Your task to perform on an android device: Go to display settings Image 0: 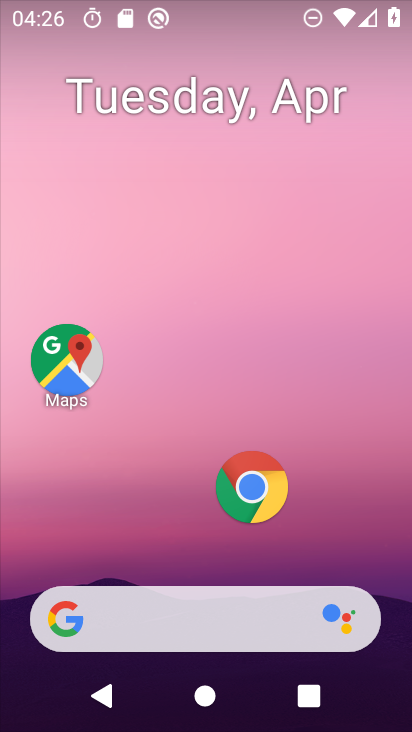
Step 0: drag from (168, 471) to (232, 26)
Your task to perform on an android device: Go to display settings Image 1: 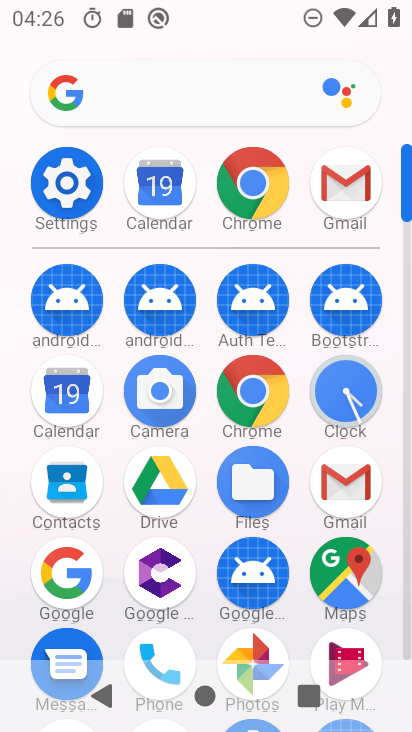
Step 1: click (70, 172)
Your task to perform on an android device: Go to display settings Image 2: 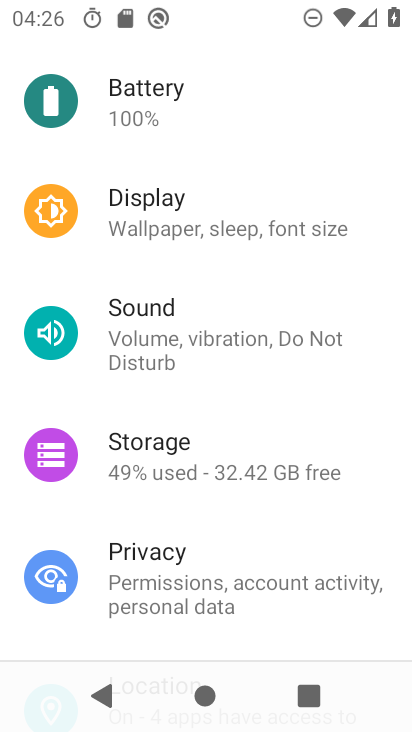
Step 2: click (165, 209)
Your task to perform on an android device: Go to display settings Image 3: 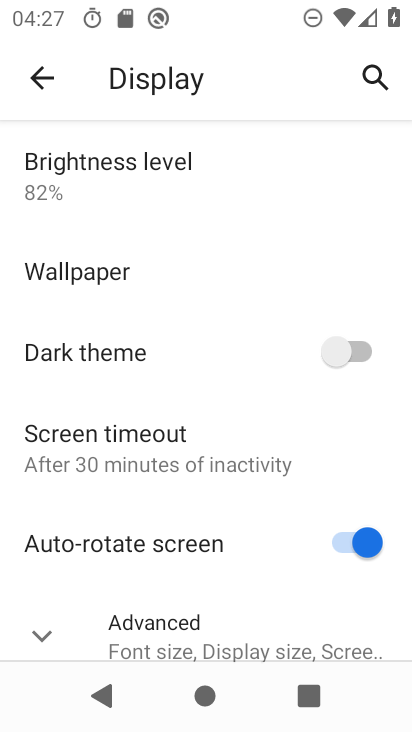
Step 3: task complete